Your task to perform on an android device: Open location settings Image 0: 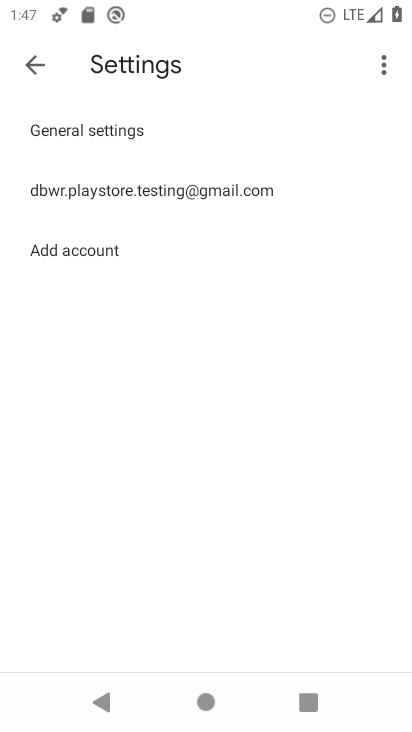
Step 0: press home button
Your task to perform on an android device: Open location settings Image 1: 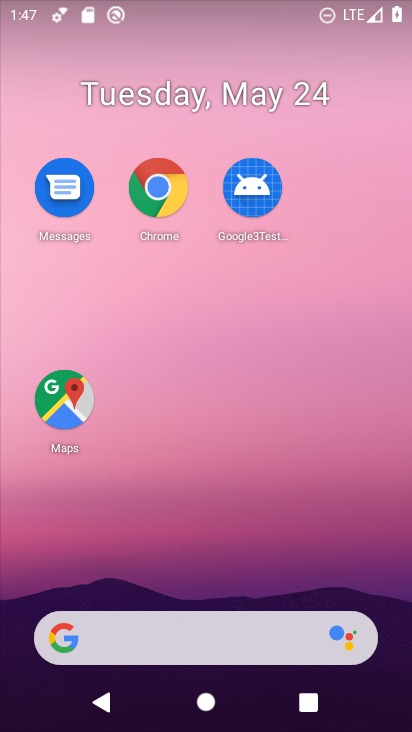
Step 1: drag from (209, 551) to (263, 78)
Your task to perform on an android device: Open location settings Image 2: 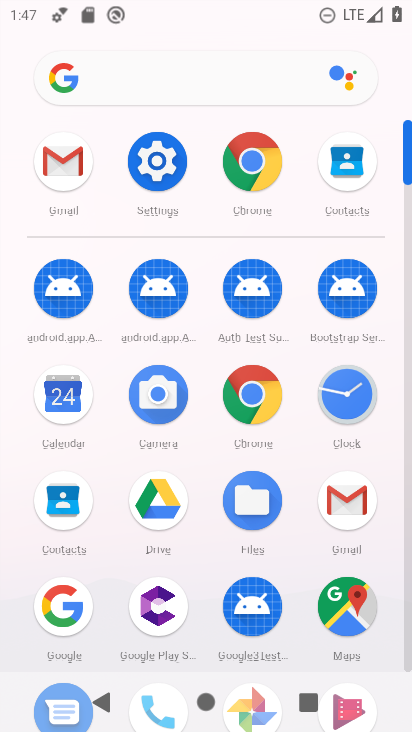
Step 2: click (159, 171)
Your task to perform on an android device: Open location settings Image 3: 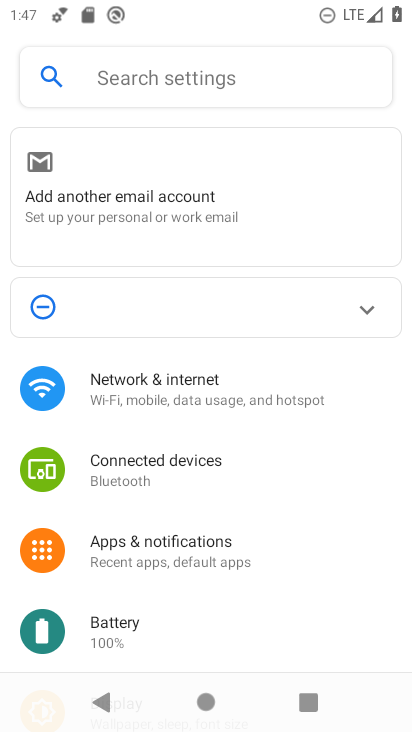
Step 3: drag from (201, 632) to (215, 252)
Your task to perform on an android device: Open location settings Image 4: 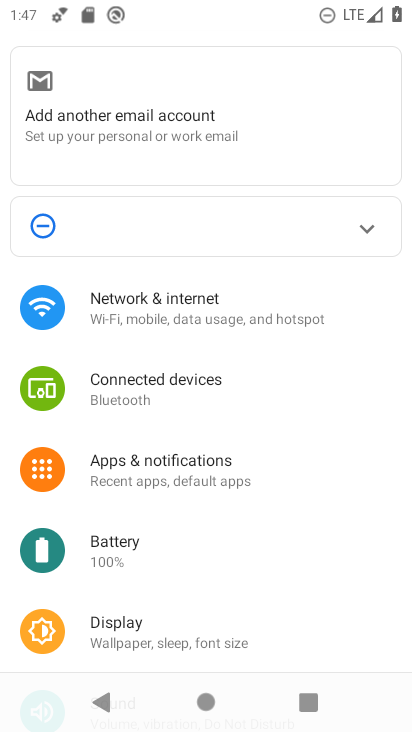
Step 4: drag from (156, 321) to (156, 203)
Your task to perform on an android device: Open location settings Image 5: 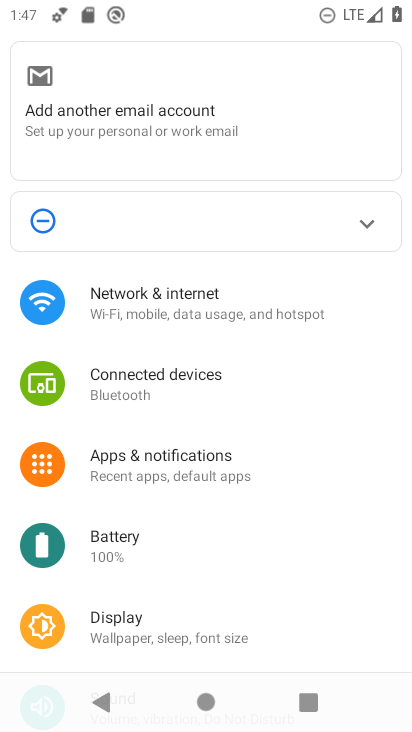
Step 5: click (173, 208)
Your task to perform on an android device: Open location settings Image 6: 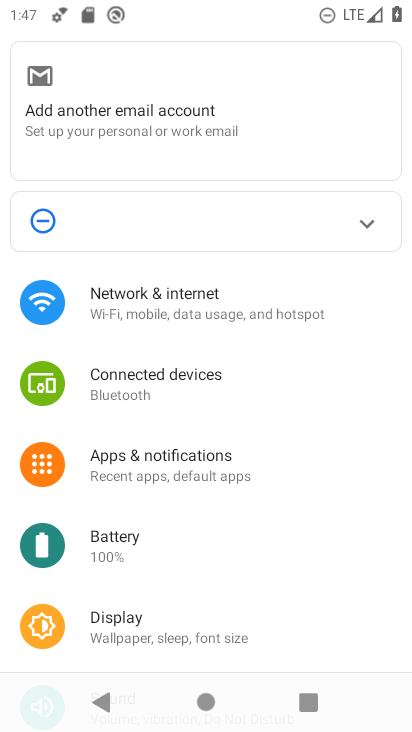
Step 6: drag from (208, 618) to (201, 279)
Your task to perform on an android device: Open location settings Image 7: 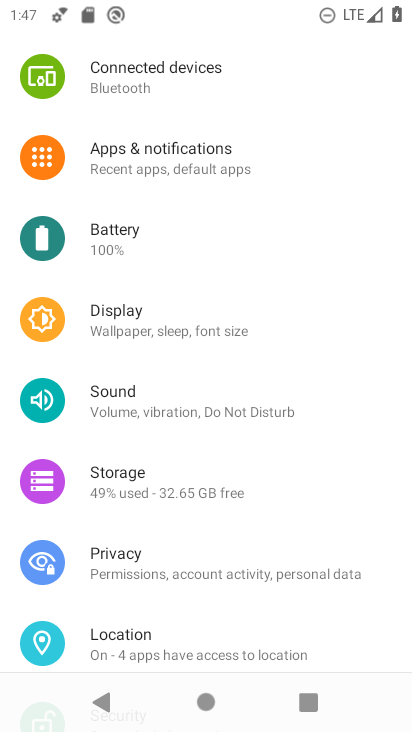
Step 7: click (124, 650)
Your task to perform on an android device: Open location settings Image 8: 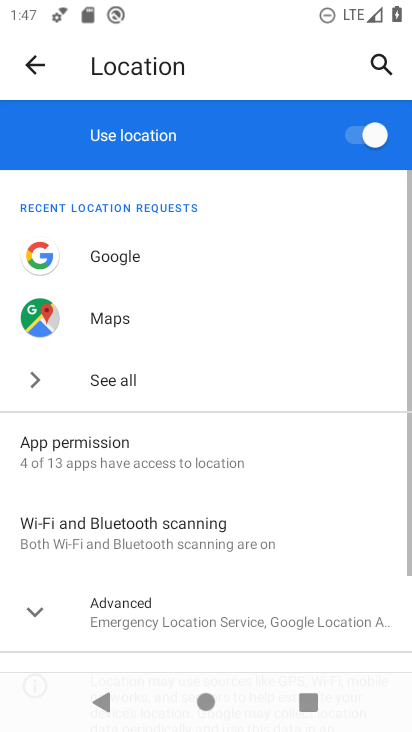
Step 8: task complete